Your task to perform on an android device: Go to Android settings Image 0: 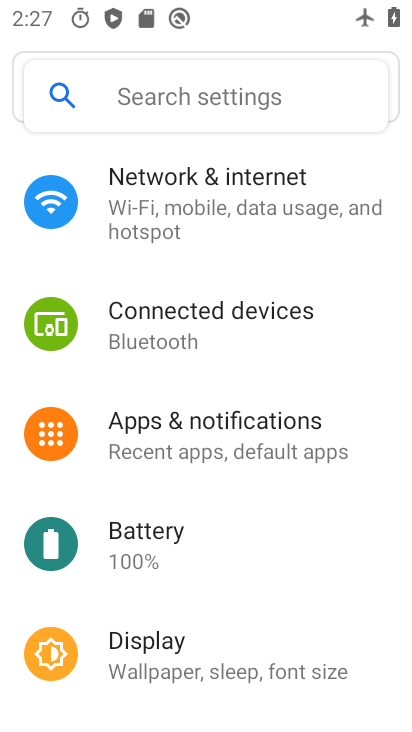
Step 0: drag from (250, 573) to (212, 0)
Your task to perform on an android device: Go to Android settings Image 1: 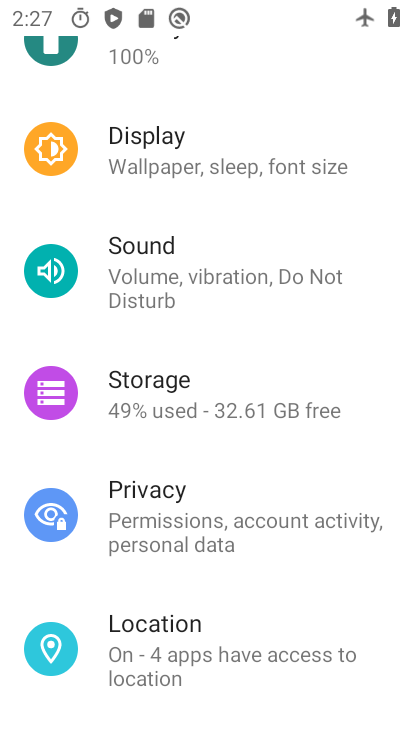
Step 1: task complete